Your task to perform on an android device: turn off translation in the chrome app Image 0: 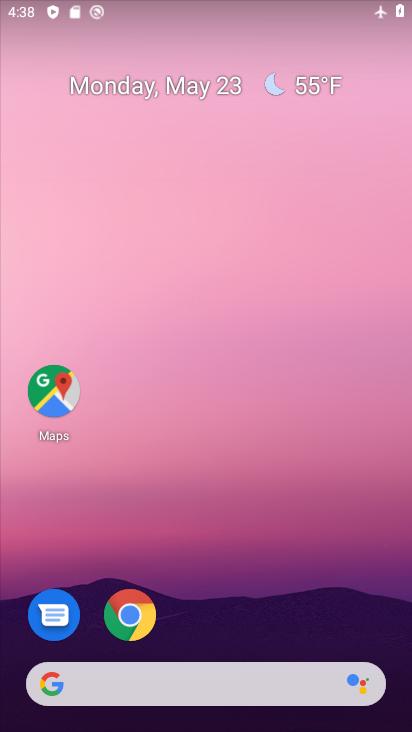
Step 0: drag from (381, 631) to (383, 321)
Your task to perform on an android device: turn off translation in the chrome app Image 1: 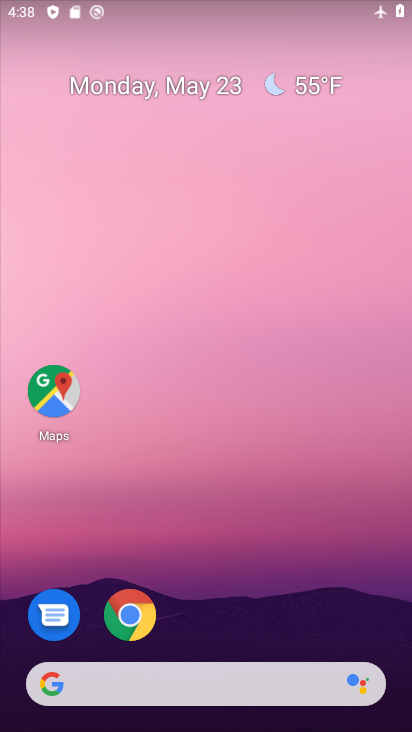
Step 1: drag from (379, 636) to (373, 268)
Your task to perform on an android device: turn off translation in the chrome app Image 2: 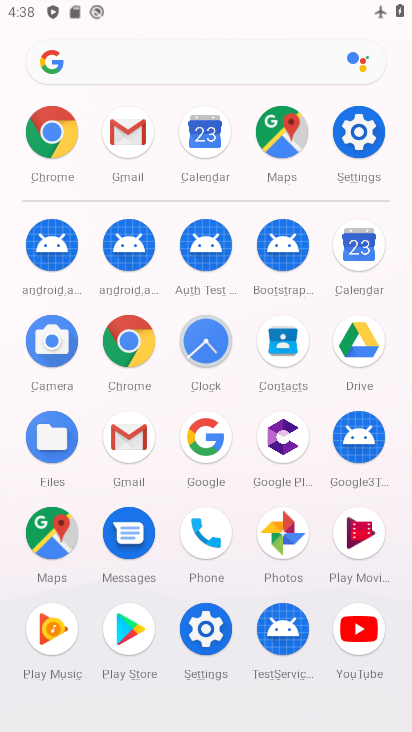
Step 2: click (145, 349)
Your task to perform on an android device: turn off translation in the chrome app Image 3: 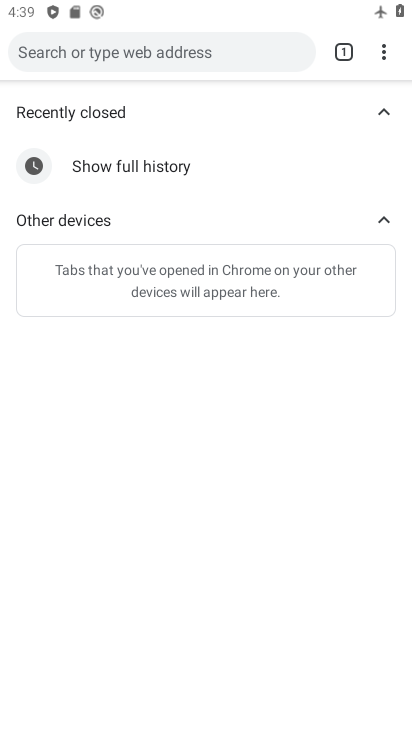
Step 3: click (385, 59)
Your task to perform on an android device: turn off translation in the chrome app Image 4: 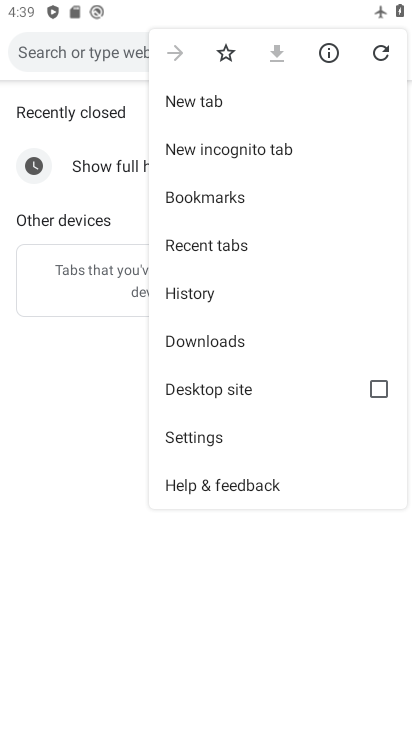
Step 4: click (213, 447)
Your task to perform on an android device: turn off translation in the chrome app Image 5: 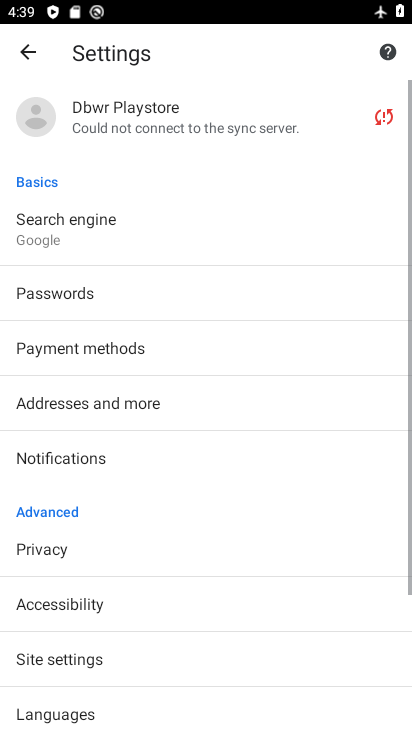
Step 5: drag from (309, 563) to (320, 489)
Your task to perform on an android device: turn off translation in the chrome app Image 6: 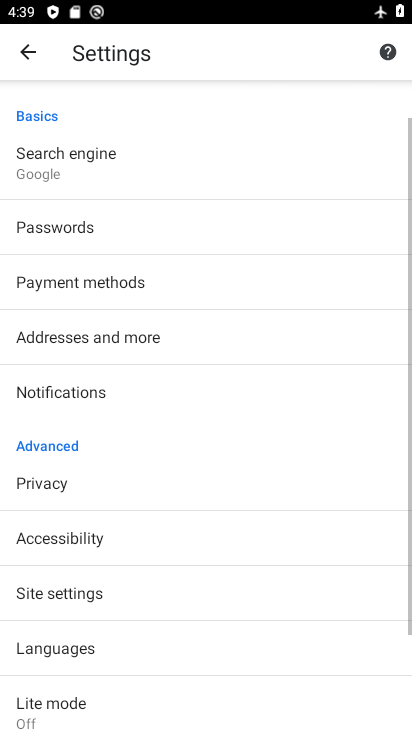
Step 6: drag from (335, 634) to (338, 543)
Your task to perform on an android device: turn off translation in the chrome app Image 7: 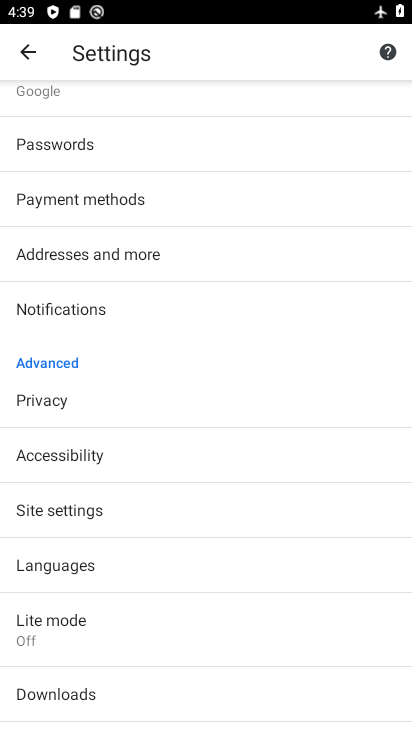
Step 7: drag from (337, 639) to (333, 555)
Your task to perform on an android device: turn off translation in the chrome app Image 8: 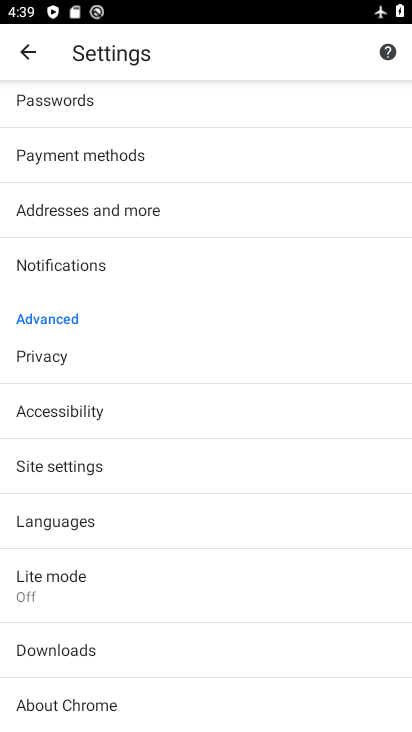
Step 8: drag from (326, 671) to (325, 543)
Your task to perform on an android device: turn off translation in the chrome app Image 9: 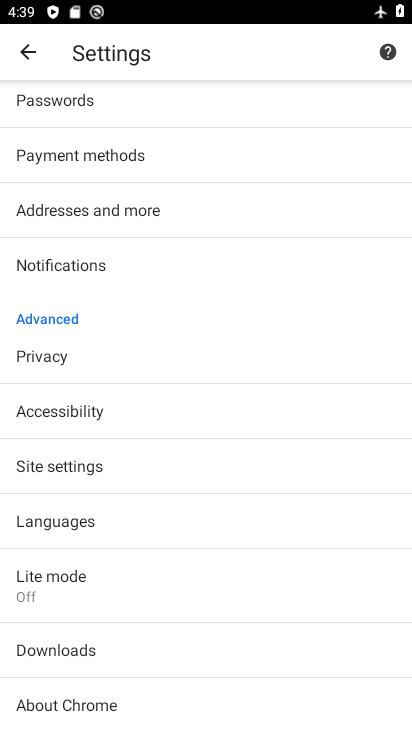
Step 9: drag from (323, 420) to (317, 576)
Your task to perform on an android device: turn off translation in the chrome app Image 10: 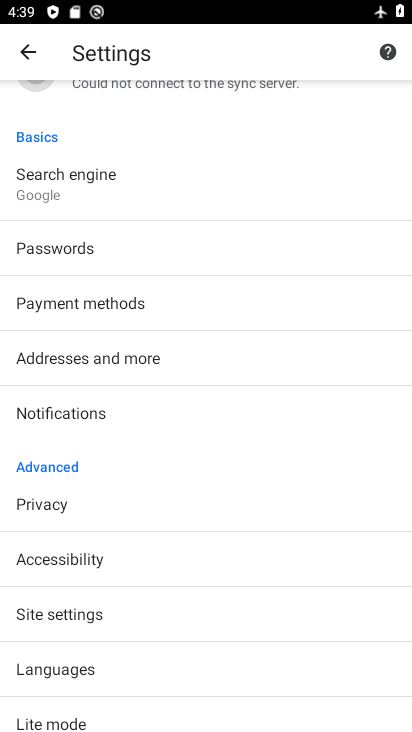
Step 10: drag from (311, 350) to (316, 477)
Your task to perform on an android device: turn off translation in the chrome app Image 11: 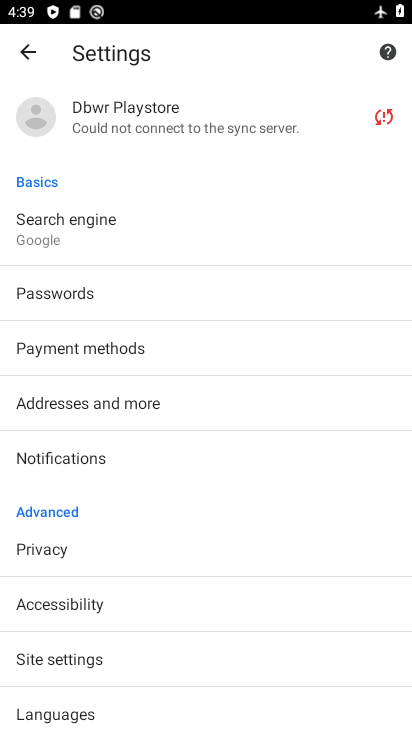
Step 11: drag from (316, 316) to (317, 440)
Your task to perform on an android device: turn off translation in the chrome app Image 12: 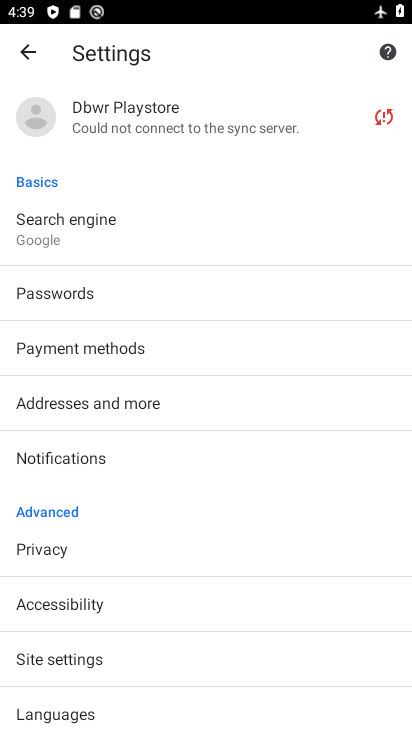
Step 12: drag from (331, 575) to (331, 456)
Your task to perform on an android device: turn off translation in the chrome app Image 13: 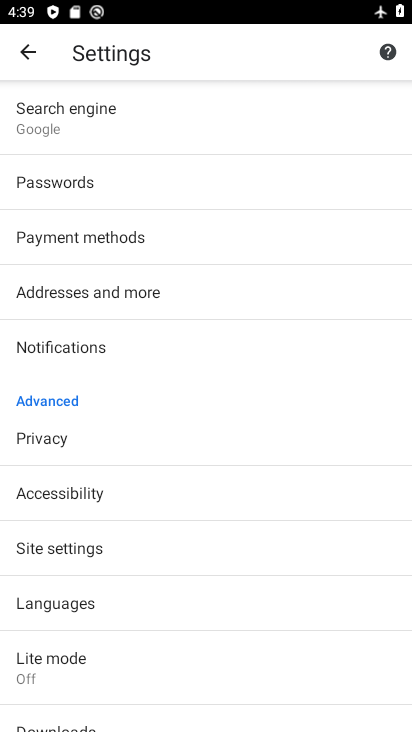
Step 13: click (223, 600)
Your task to perform on an android device: turn off translation in the chrome app Image 14: 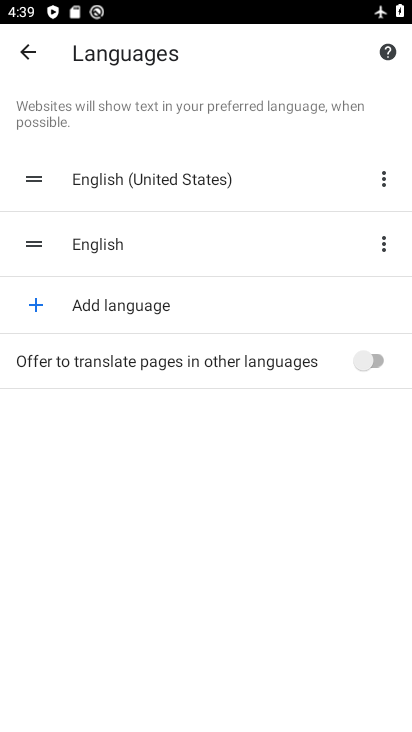
Step 14: task complete